Your task to perform on an android device: Open settings on Google Maps Image 0: 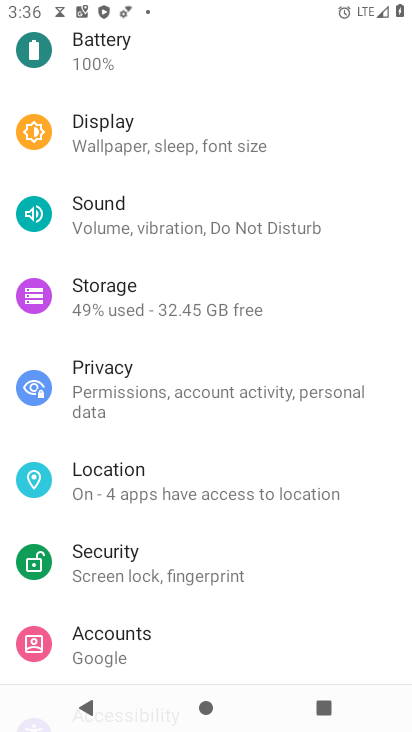
Step 0: press home button
Your task to perform on an android device: Open settings on Google Maps Image 1: 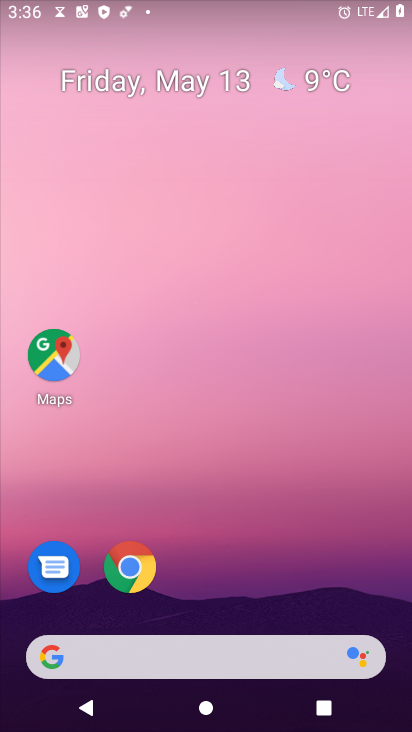
Step 1: click (47, 352)
Your task to perform on an android device: Open settings on Google Maps Image 2: 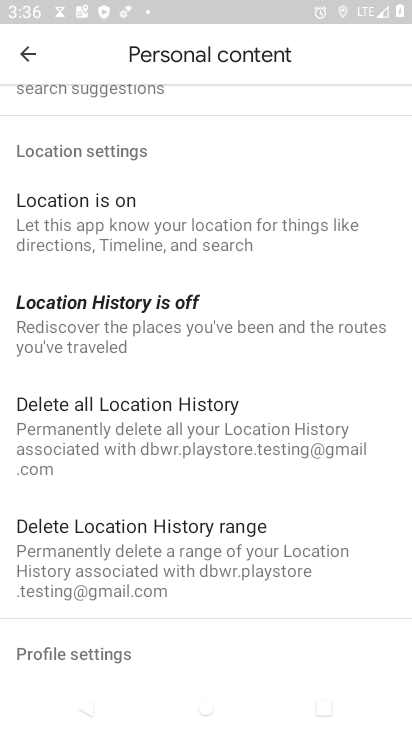
Step 2: click (32, 56)
Your task to perform on an android device: Open settings on Google Maps Image 3: 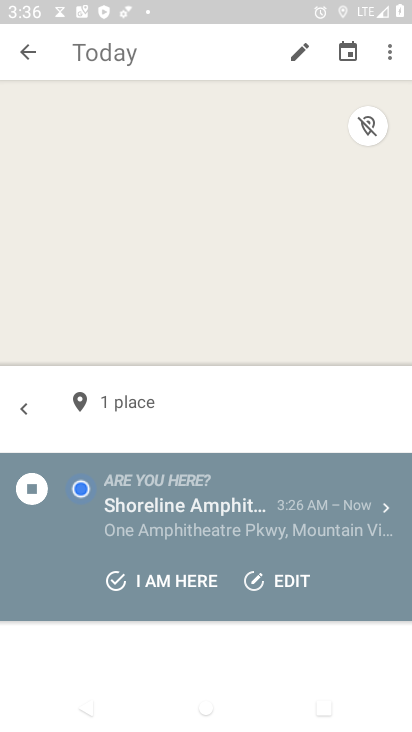
Step 3: click (32, 56)
Your task to perform on an android device: Open settings on Google Maps Image 4: 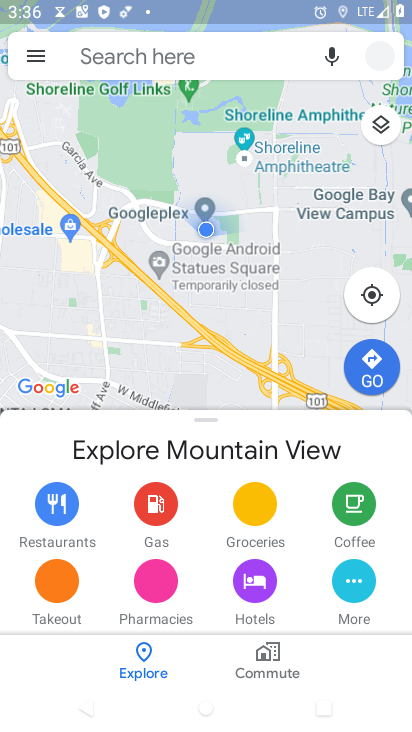
Step 4: click (32, 51)
Your task to perform on an android device: Open settings on Google Maps Image 5: 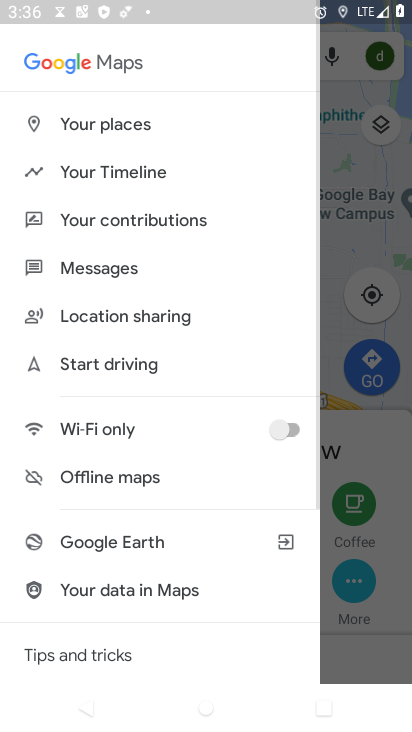
Step 5: drag from (107, 509) to (141, 96)
Your task to perform on an android device: Open settings on Google Maps Image 6: 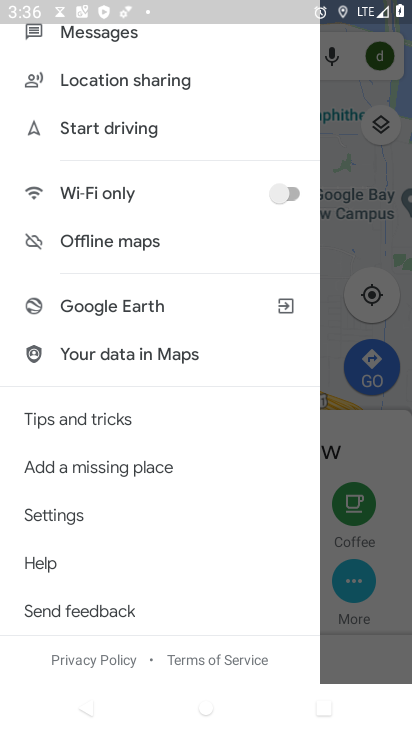
Step 6: click (67, 513)
Your task to perform on an android device: Open settings on Google Maps Image 7: 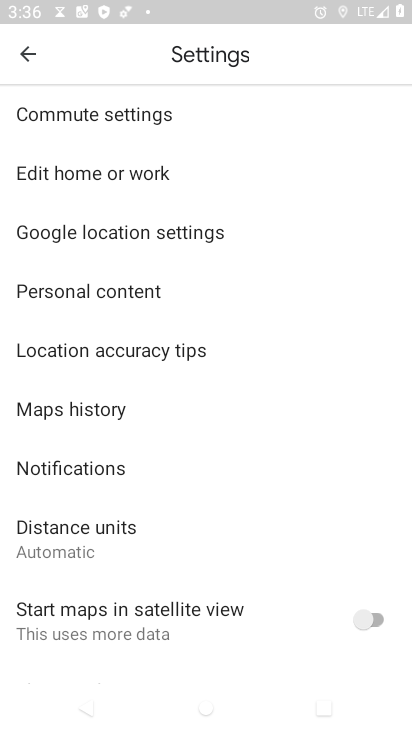
Step 7: task complete